Your task to perform on an android device: turn off javascript in the chrome app Image 0: 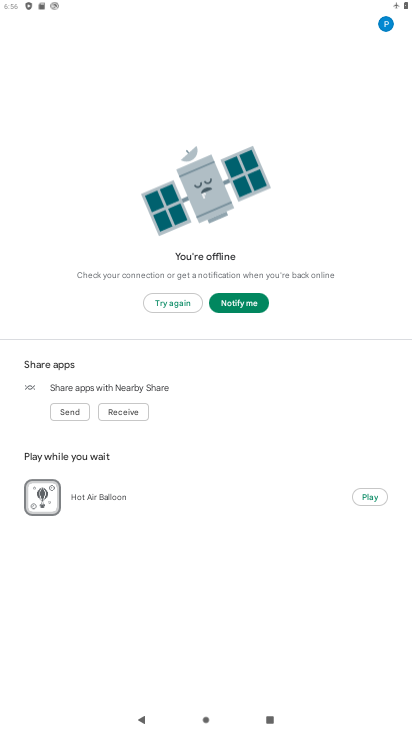
Step 0: press home button
Your task to perform on an android device: turn off javascript in the chrome app Image 1: 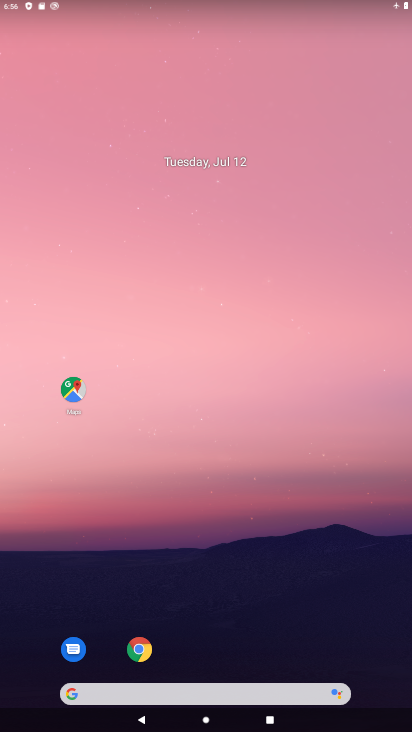
Step 1: click (137, 658)
Your task to perform on an android device: turn off javascript in the chrome app Image 2: 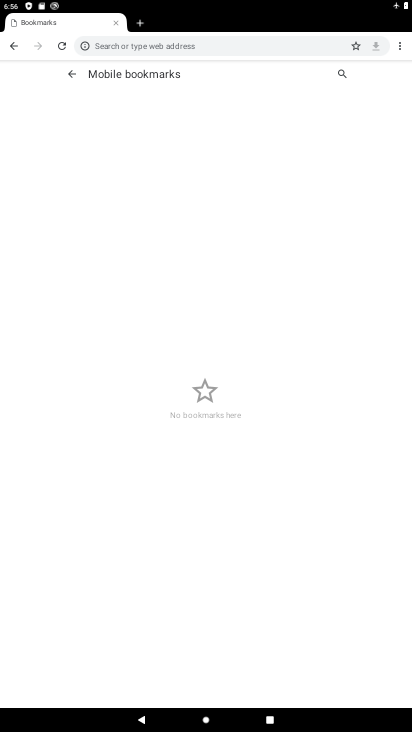
Step 2: click (402, 48)
Your task to perform on an android device: turn off javascript in the chrome app Image 3: 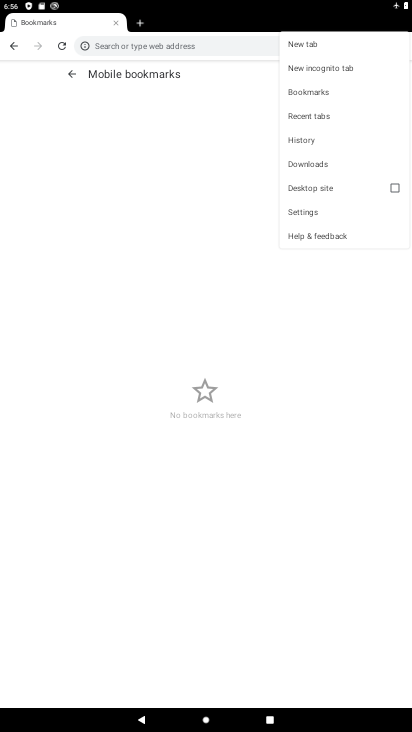
Step 3: click (317, 214)
Your task to perform on an android device: turn off javascript in the chrome app Image 4: 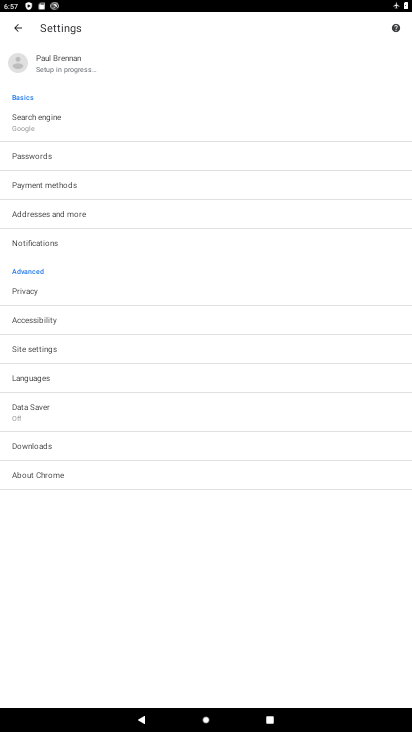
Step 4: click (36, 347)
Your task to perform on an android device: turn off javascript in the chrome app Image 5: 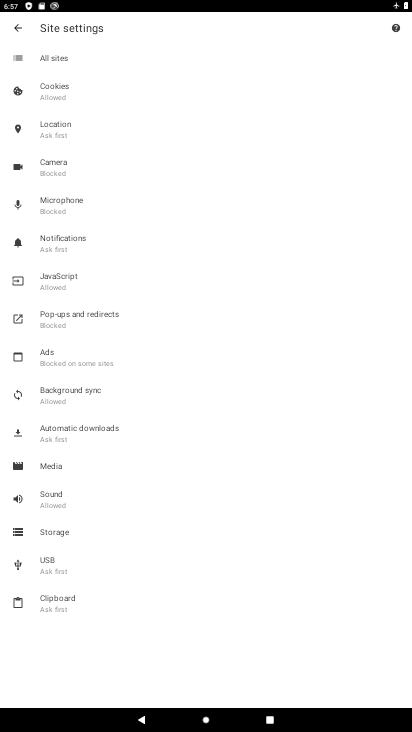
Step 5: click (63, 283)
Your task to perform on an android device: turn off javascript in the chrome app Image 6: 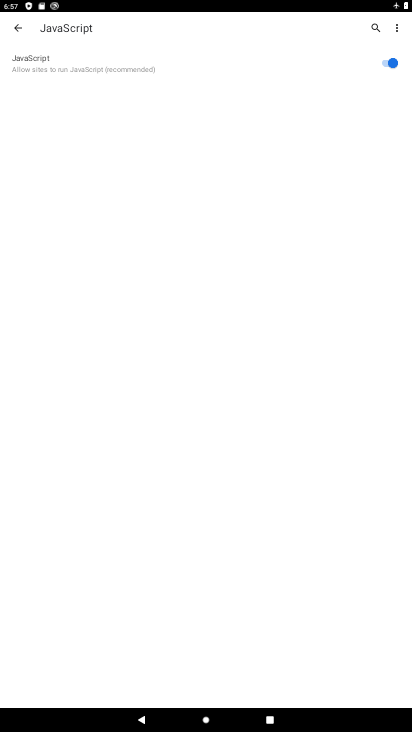
Step 6: click (383, 60)
Your task to perform on an android device: turn off javascript in the chrome app Image 7: 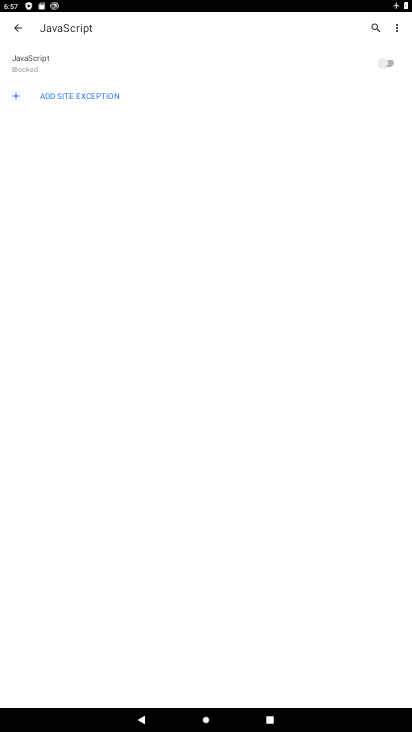
Step 7: task complete